Your task to perform on an android device: Search for "logitech g pro" on target.com, select the first entry, add it to the cart, then select checkout. Image 0: 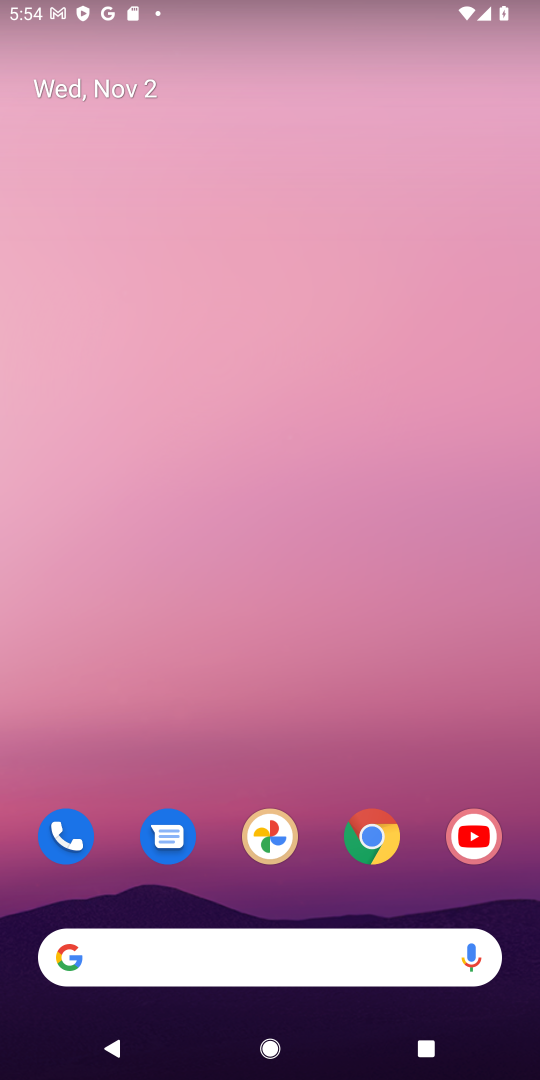
Step 0: drag from (221, 802) to (229, 170)
Your task to perform on an android device: Search for "logitech g pro" on target.com, select the first entry, add it to the cart, then select checkout. Image 1: 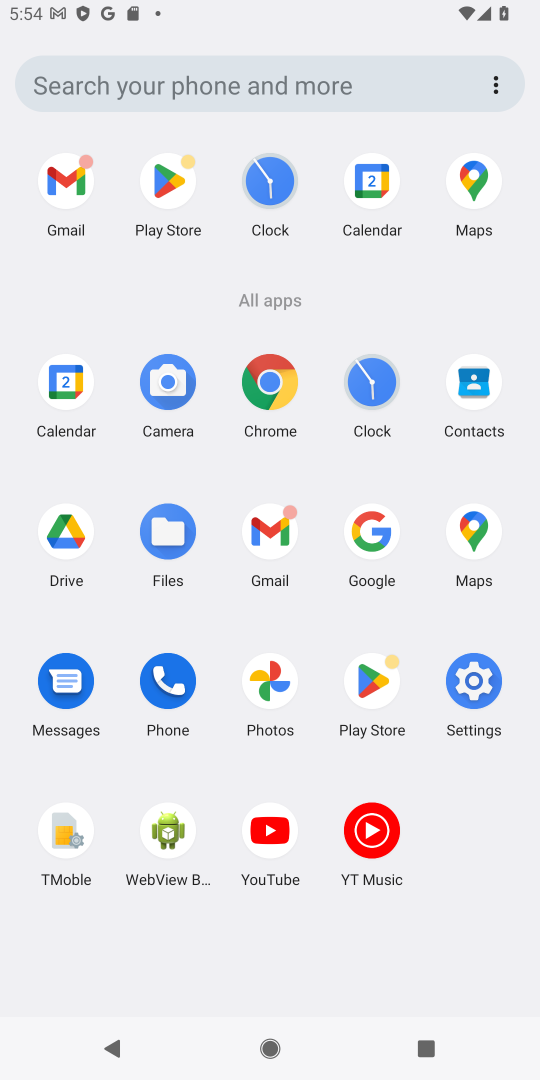
Step 1: click (371, 535)
Your task to perform on an android device: Search for "logitech g pro" on target.com, select the first entry, add it to the cart, then select checkout. Image 2: 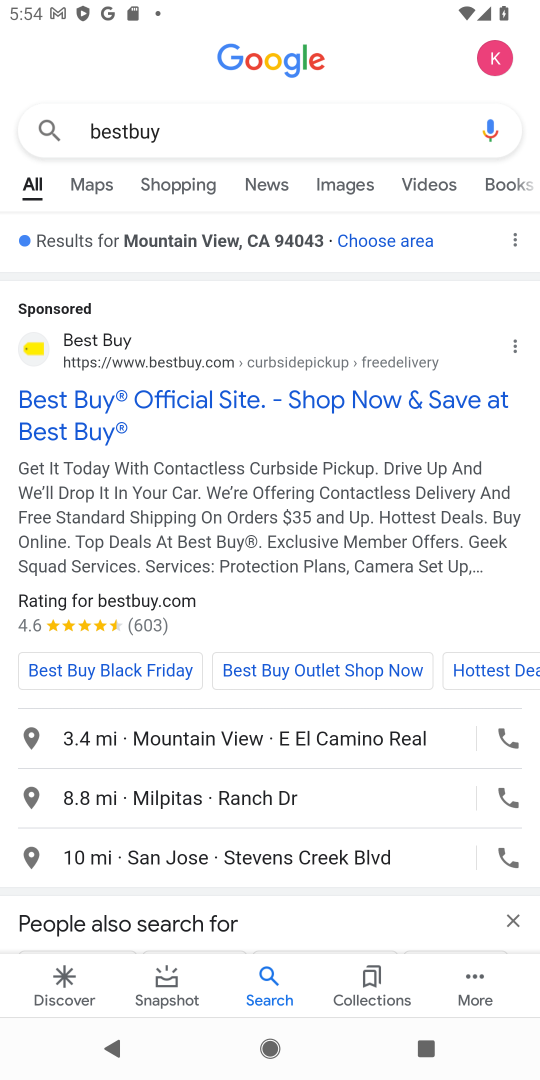
Step 2: click (130, 135)
Your task to perform on an android device: Search for "logitech g pro" on target.com, select the first entry, add it to the cart, then select checkout. Image 3: 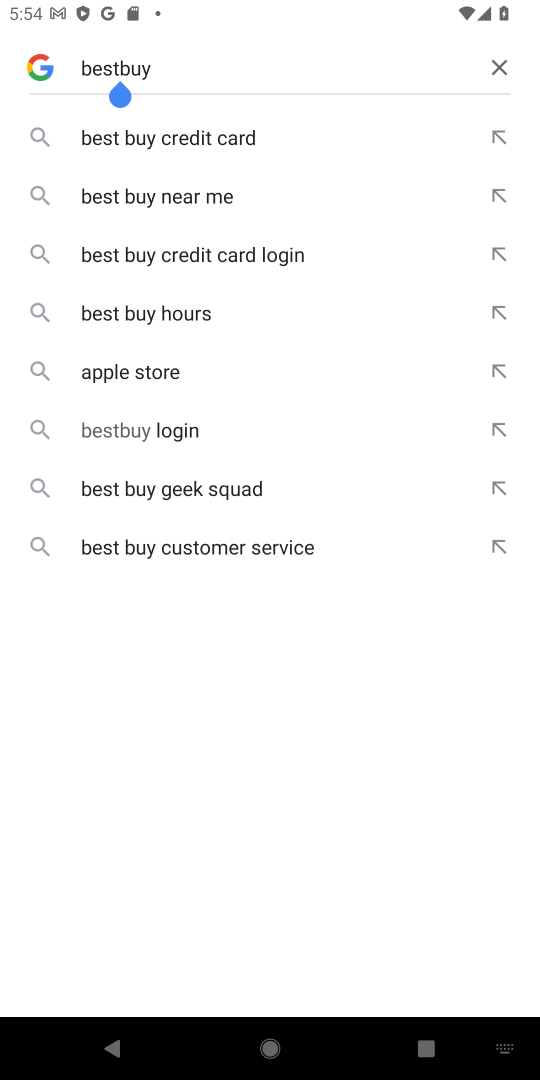
Step 3: click (495, 68)
Your task to perform on an android device: Search for "logitech g pro" on target.com, select the first entry, add it to the cart, then select checkout. Image 4: 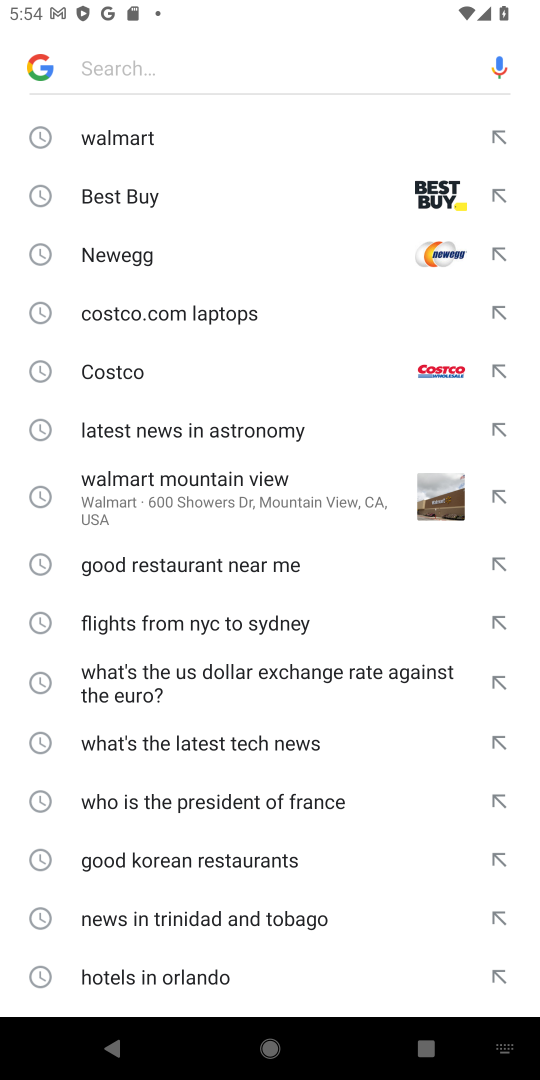
Step 4: type "target.com"
Your task to perform on an android device: Search for "logitech g pro" on target.com, select the first entry, add it to the cart, then select checkout. Image 5: 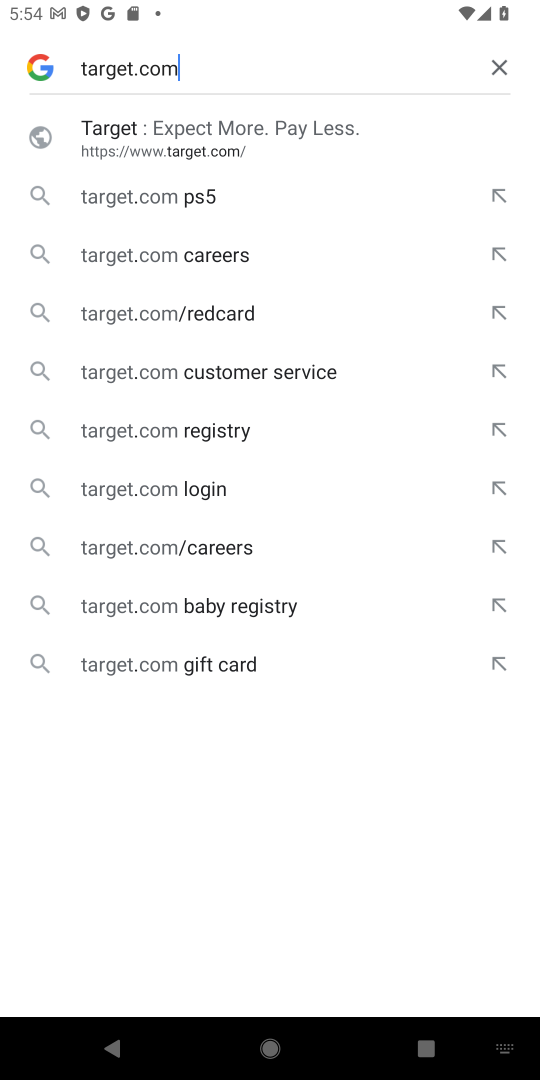
Step 5: click (129, 142)
Your task to perform on an android device: Search for "logitech g pro" on target.com, select the first entry, add it to the cart, then select checkout. Image 6: 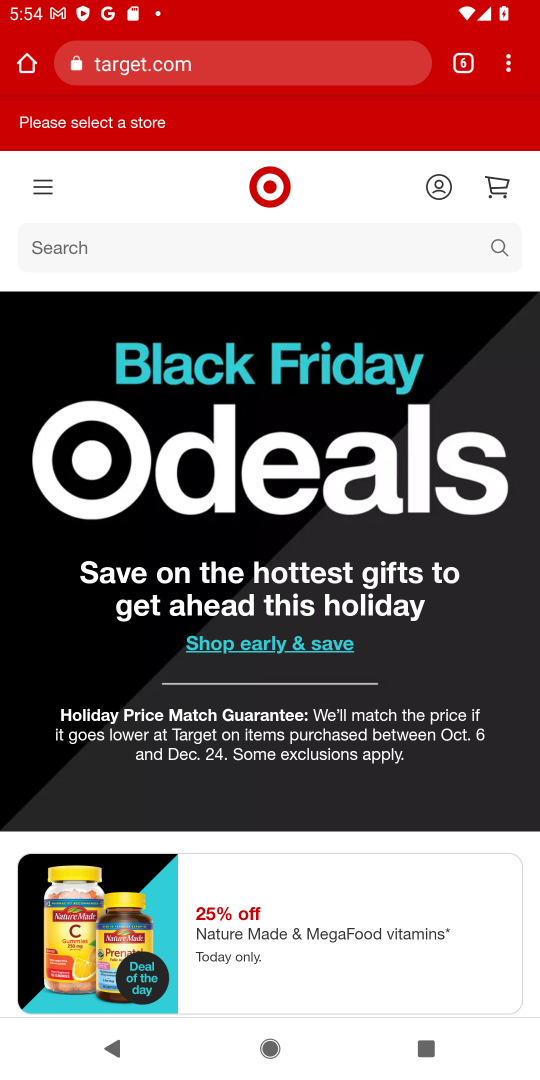
Step 6: click (43, 249)
Your task to perform on an android device: Search for "logitech g pro" on target.com, select the first entry, add it to the cart, then select checkout. Image 7: 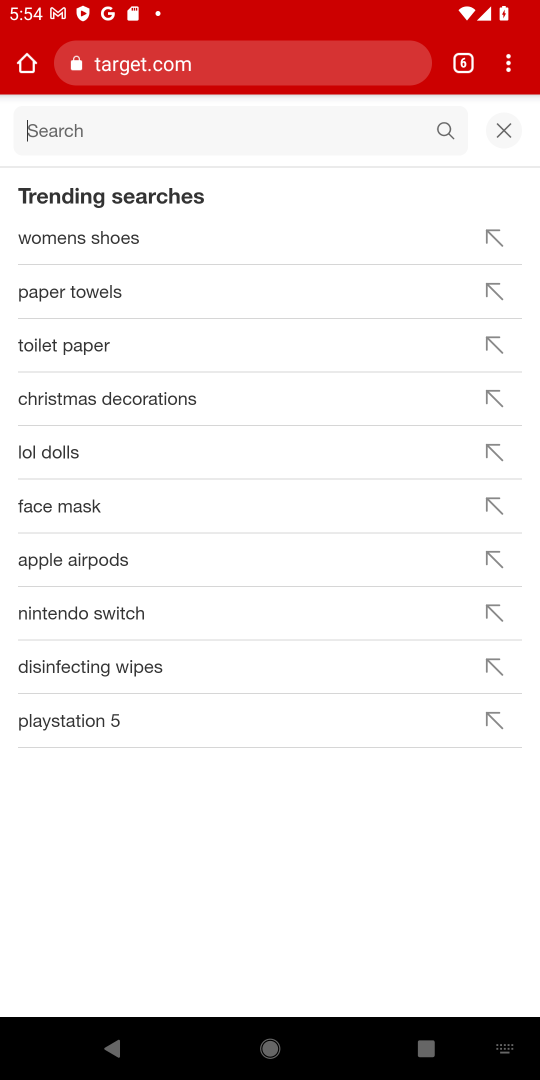
Step 7: type "logitech g pro""
Your task to perform on an android device: Search for "logitech g pro" on target.com, select the first entry, add it to the cart, then select checkout. Image 8: 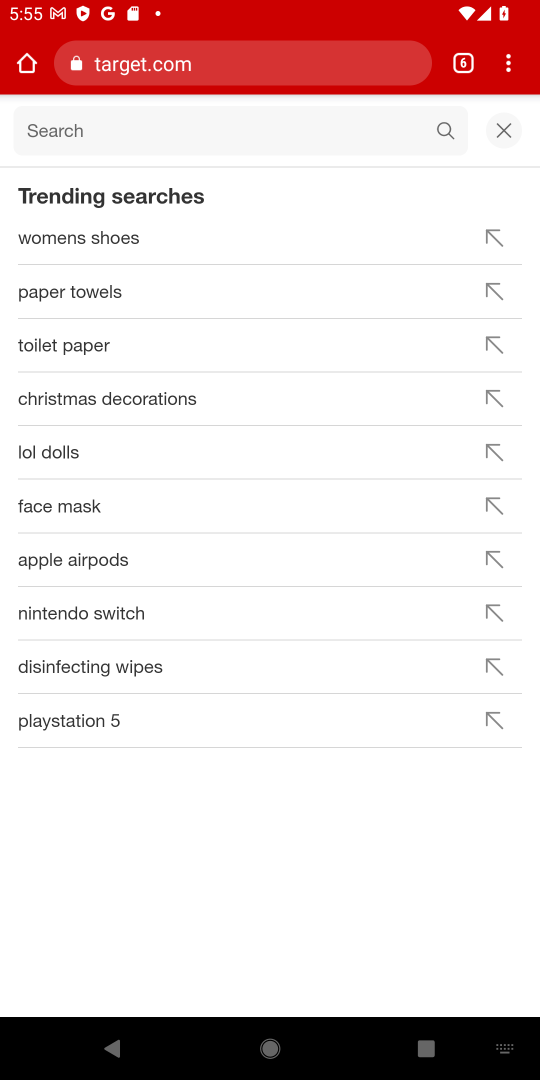
Step 8: click (445, 125)
Your task to perform on an android device: Search for "logitech g pro" on target.com, select the first entry, add it to the cart, then select checkout. Image 9: 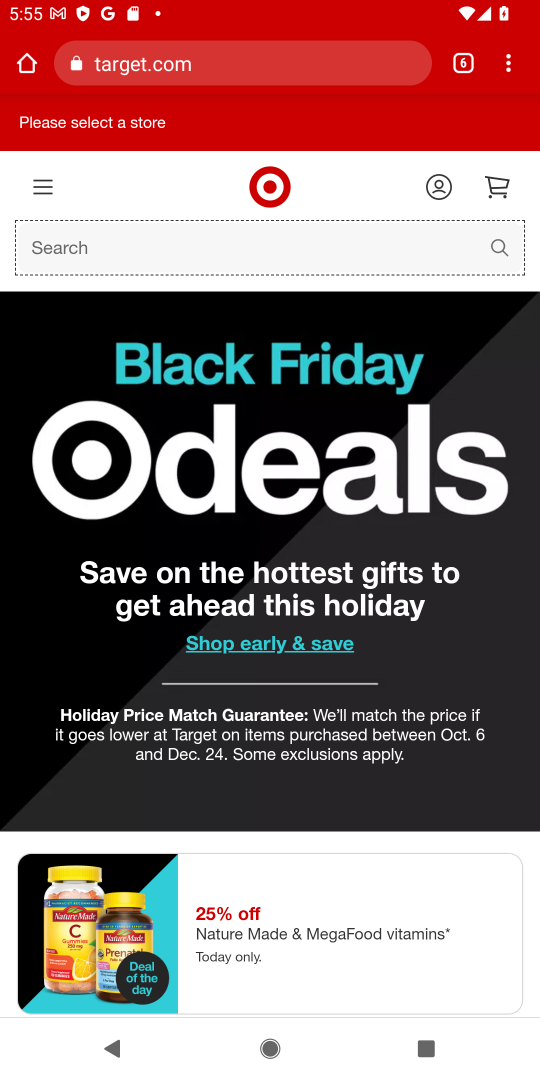
Step 9: click (303, 244)
Your task to perform on an android device: Search for "logitech g pro" on target.com, select the first entry, add it to the cart, then select checkout. Image 10: 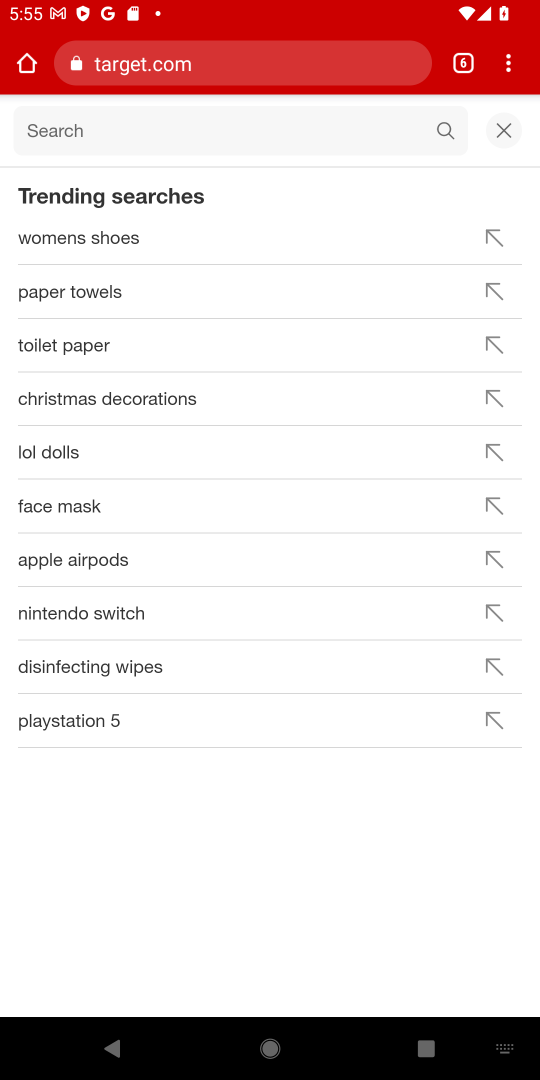
Step 10: type "logitech g pro"
Your task to perform on an android device: Search for "logitech g pro" on target.com, select the first entry, add it to the cart, then select checkout. Image 11: 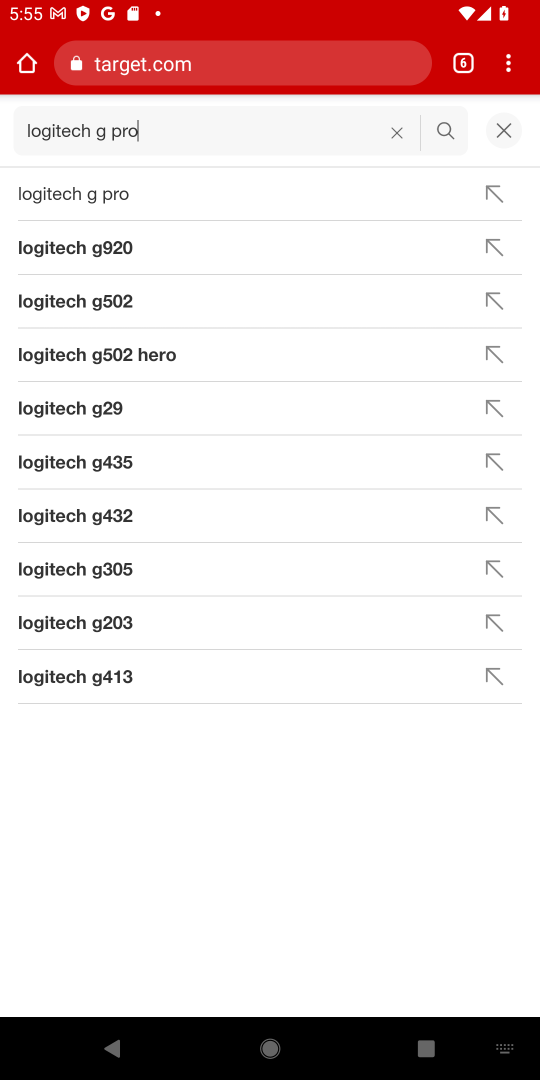
Step 11: click (102, 192)
Your task to perform on an android device: Search for "logitech g pro" on target.com, select the first entry, add it to the cart, then select checkout. Image 12: 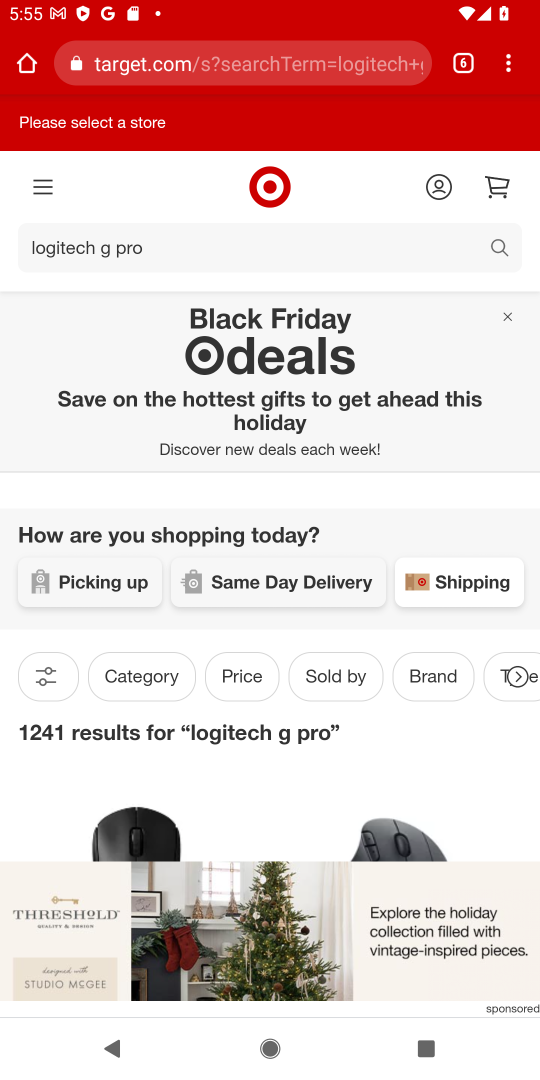
Step 12: drag from (231, 705) to (231, 246)
Your task to perform on an android device: Search for "logitech g pro" on target.com, select the first entry, add it to the cart, then select checkout. Image 13: 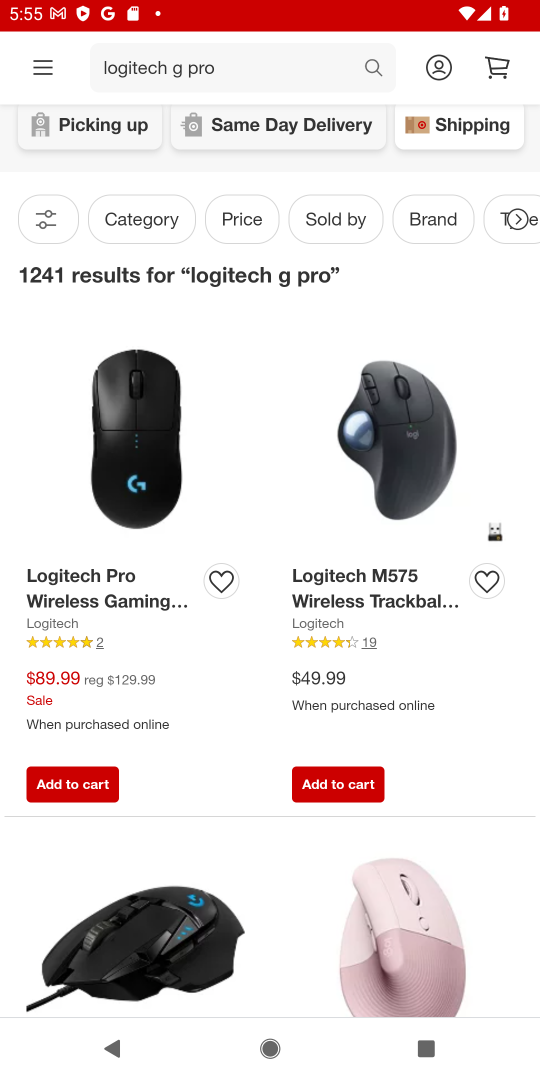
Step 13: click (51, 786)
Your task to perform on an android device: Search for "logitech g pro" on target.com, select the first entry, add it to the cart, then select checkout. Image 14: 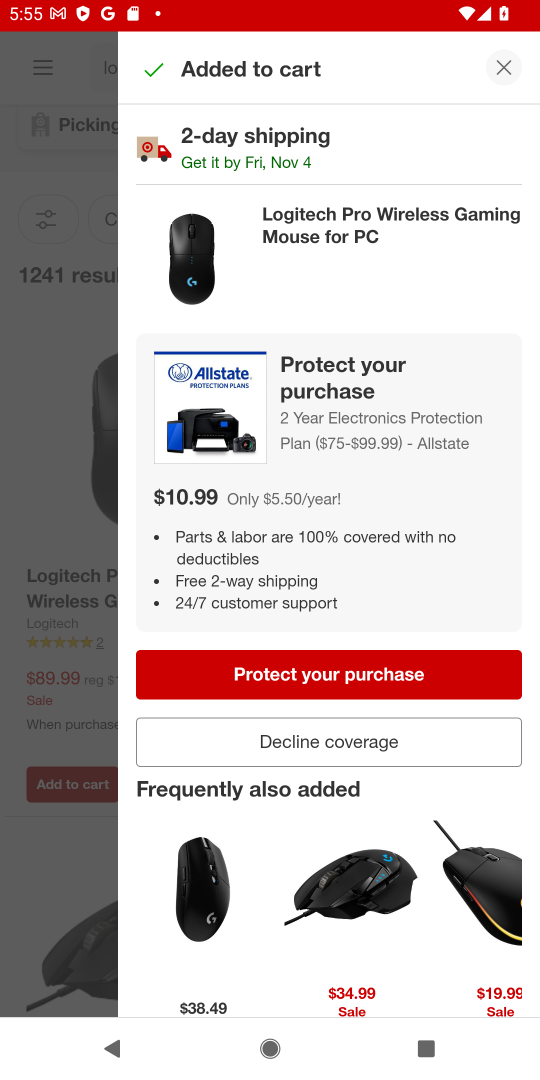
Step 14: task complete